Your task to perform on an android device: manage bookmarks in the chrome app Image 0: 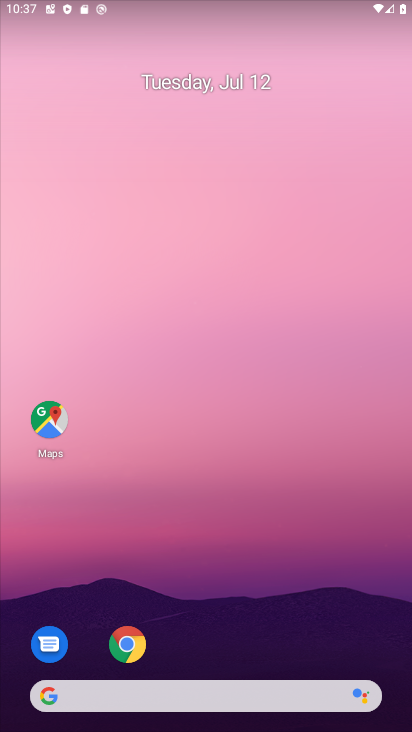
Step 0: click (130, 659)
Your task to perform on an android device: manage bookmarks in the chrome app Image 1: 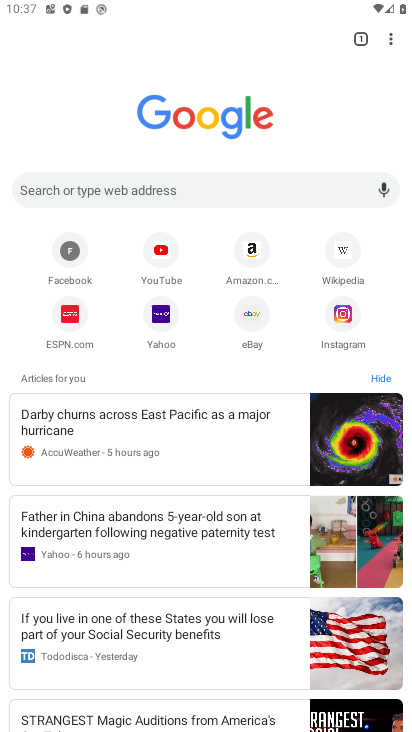
Step 1: click (391, 39)
Your task to perform on an android device: manage bookmarks in the chrome app Image 2: 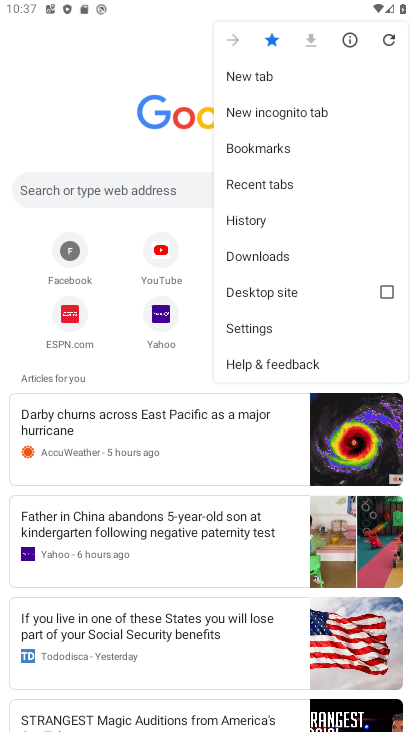
Step 2: click (301, 145)
Your task to perform on an android device: manage bookmarks in the chrome app Image 3: 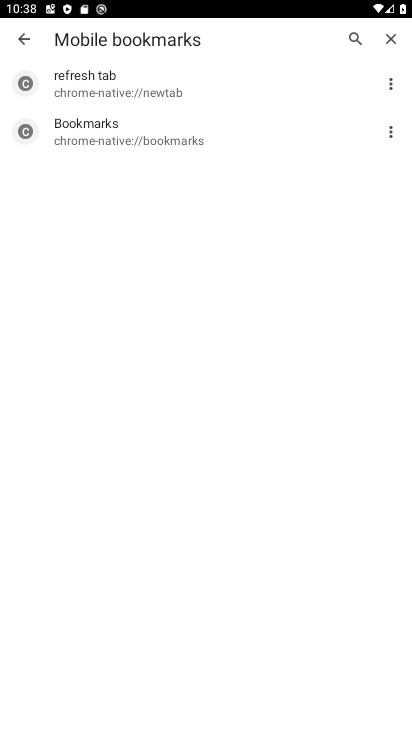
Step 3: click (396, 80)
Your task to perform on an android device: manage bookmarks in the chrome app Image 4: 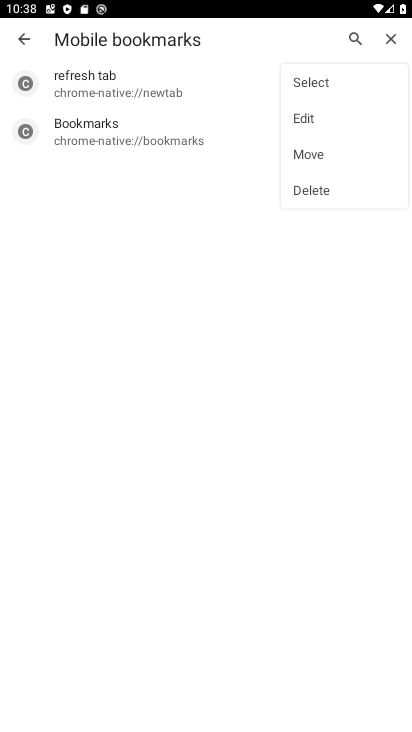
Step 4: click (336, 190)
Your task to perform on an android device: manage bookmarks in the chrome app Image 5: 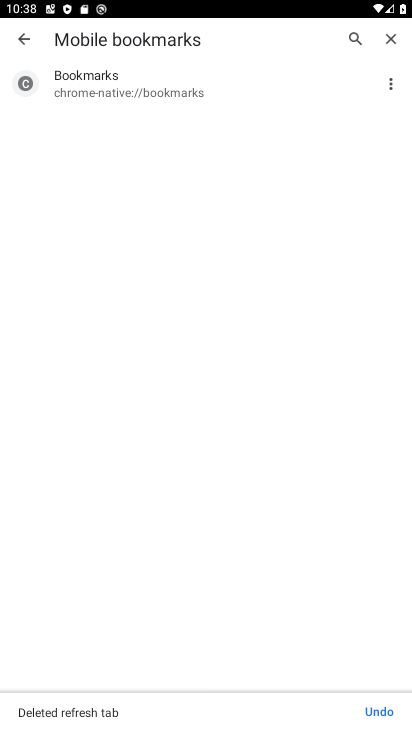
Step 5: task complete